Your task to perform on an android device: check battery use Image 0: 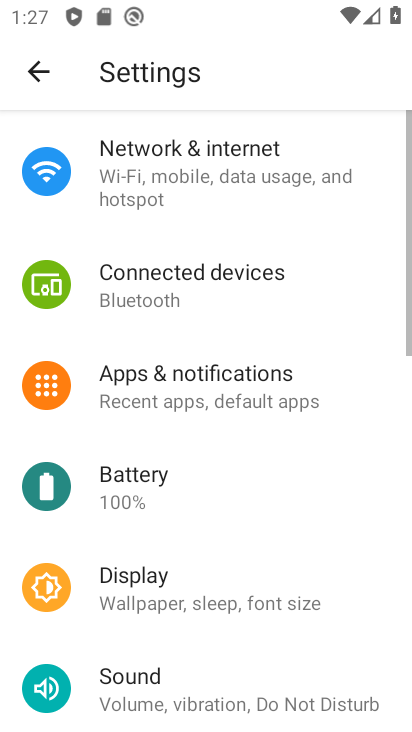
Step 0: press home button
Your task to perform on an android device: check battery use Image 1: 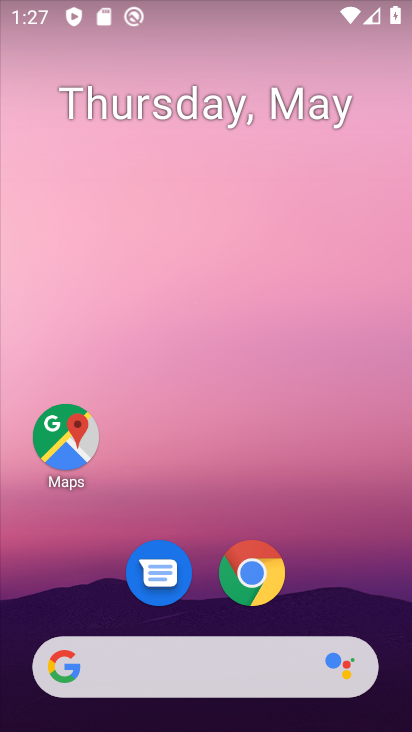
Step 1: drag from (325, 576) to (319, 101)
Your task to perform on an android device: check battery use Image 2: 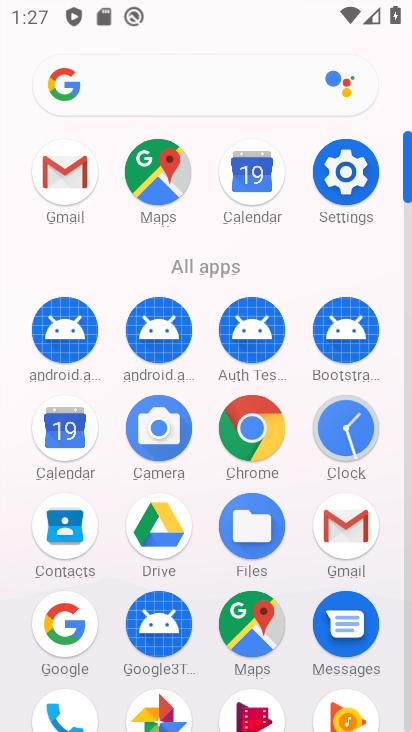
Step 2: click (347, 185)
Your task to perform on an android device: check battery use Image 3: 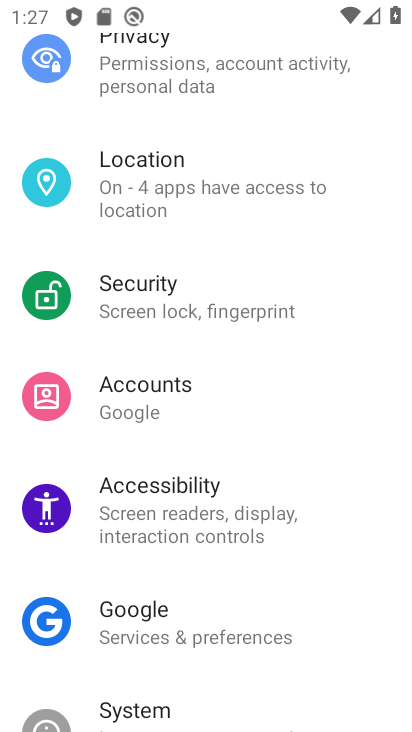
Step 3: drag from (214, 271) to (264, 652)
Your task to perform on an android device: check battery use Image 4: 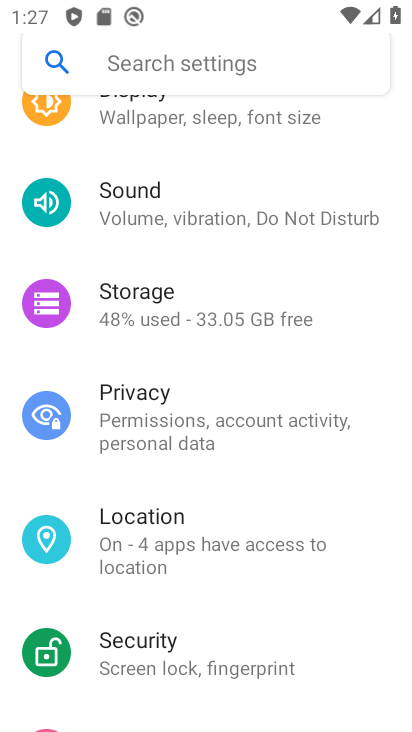
Step 4: drag from (191, 182) to (280, 503)
Your task to perform on an android device: check battery use Image 5: 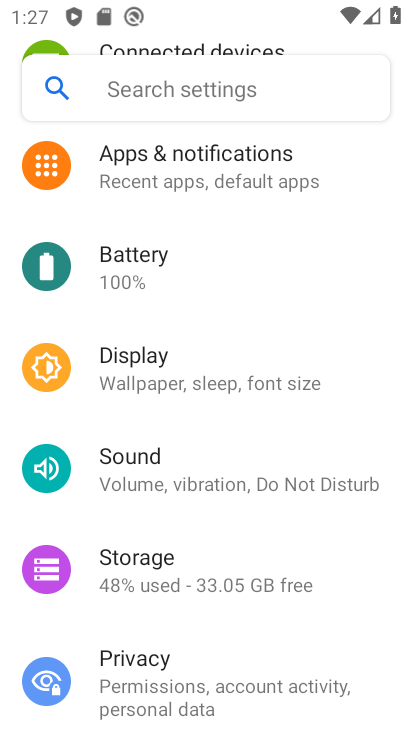
Step 5: click (152, 260)
Your task to perform on an android device: check battery use Image 6: 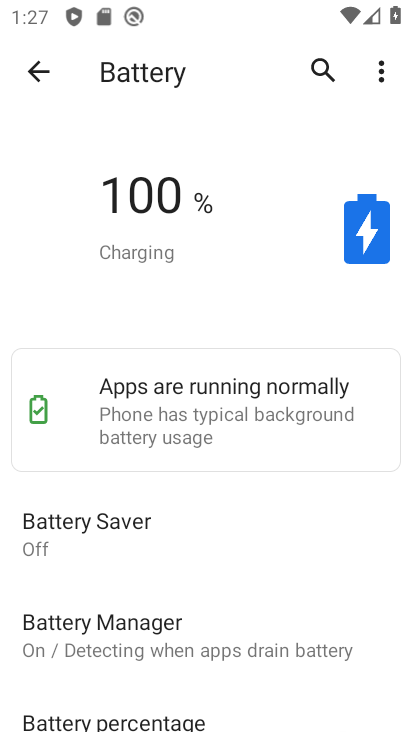
Step 6: task complete